Your task to perform on an android device: Search for pizza restaurants on Maps Image 0: 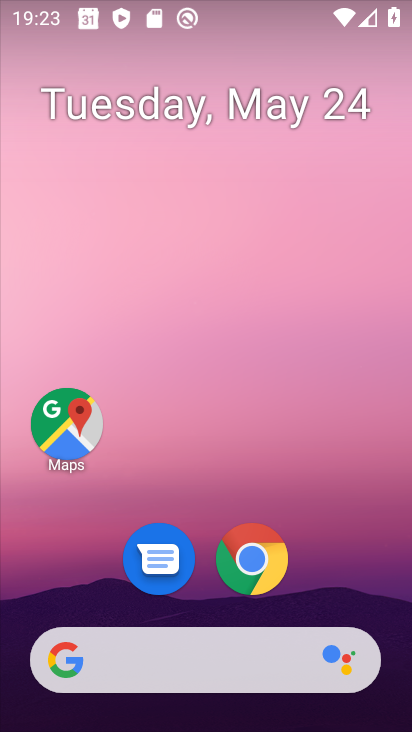
Step 0: press home button
Your task to perform on an android device: Search for pizza restaurants on Maps Image 1: 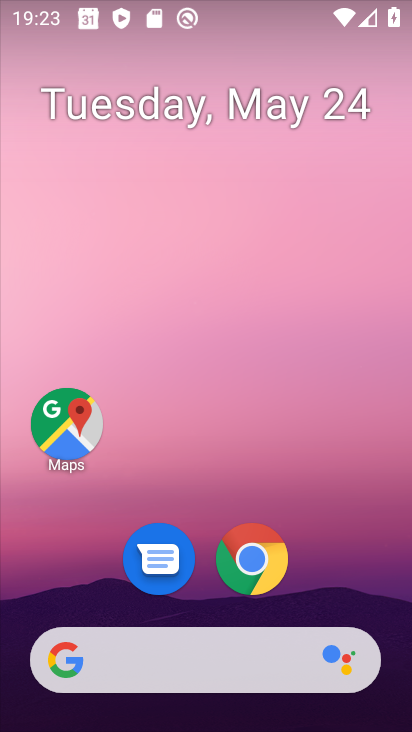
Step 1: click (67, 417)
Your task to perform on an android device: Search for pizza restaurants on Maps Image 2: 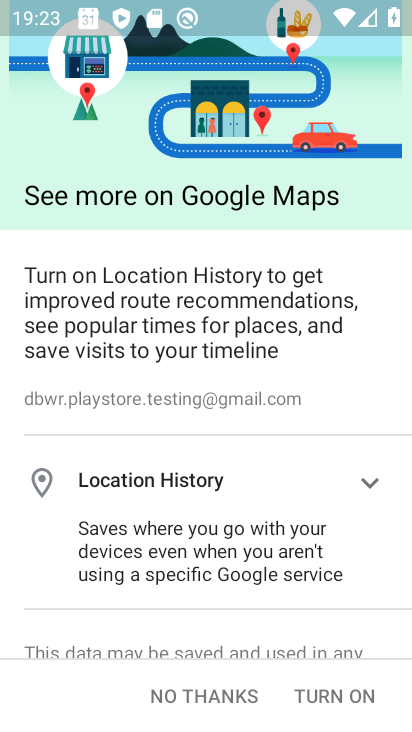
Step 2: click (199, 696)
Your task to perform on an android device: Search for pizza restaurants on Maps Image 3: 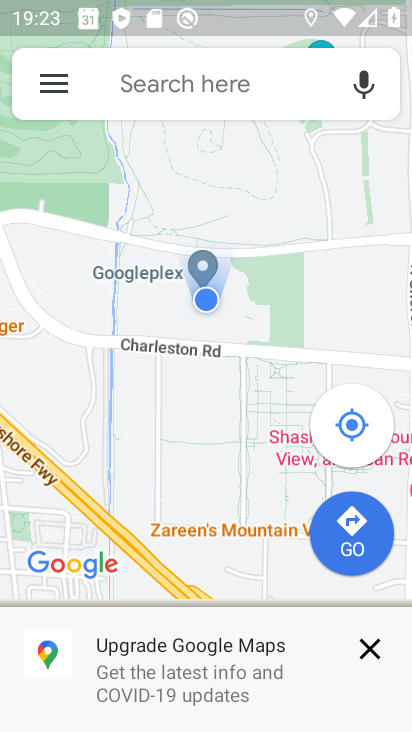
Step 3: click (218, 81)
Your task to perform on an android device: Search for pizza restaurants on Maps Image 4: 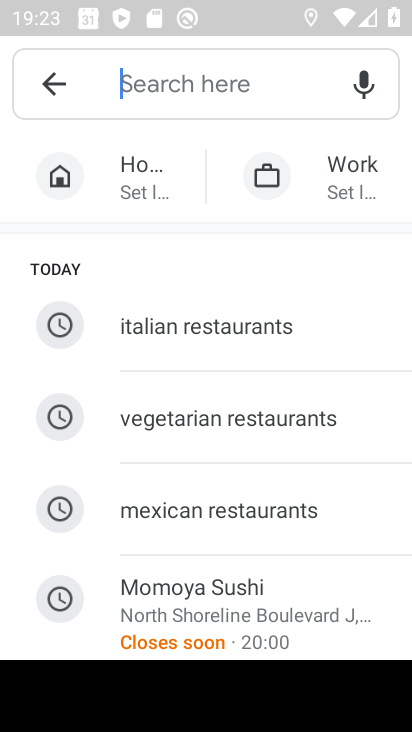
Step 4: drag from (246, 576) to (325, 240)
Your task to perform on an android device: Search for pizza restaurants on Maps Image 5: 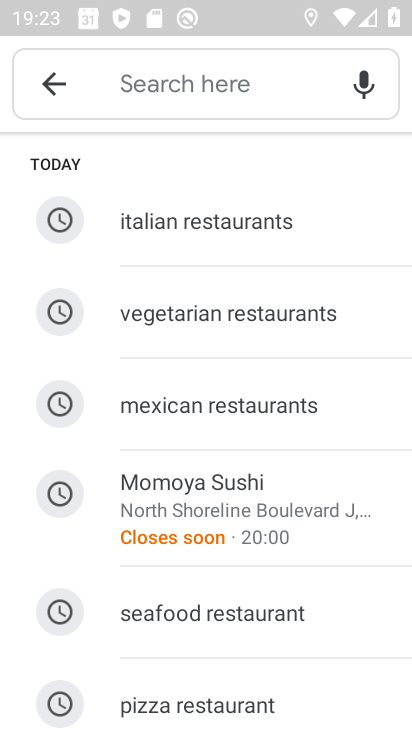
Step 5: click (191, 698)
Your task to perform on an android device: Search for pizza restaurants on Maps Image 6: 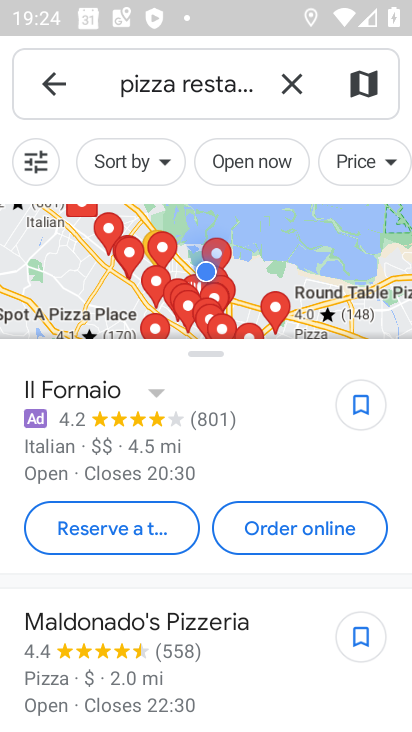
Step 6: task complete